Your task to perform on an android device: Search for Mexican restaurants on Maps Image 0: 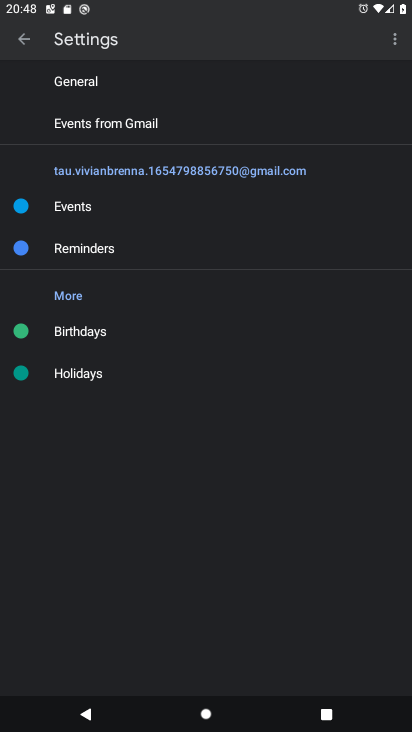
Step 0: press home button
Your task to perform on an android device: Search for Mexican restaurants on Maps Image 1: 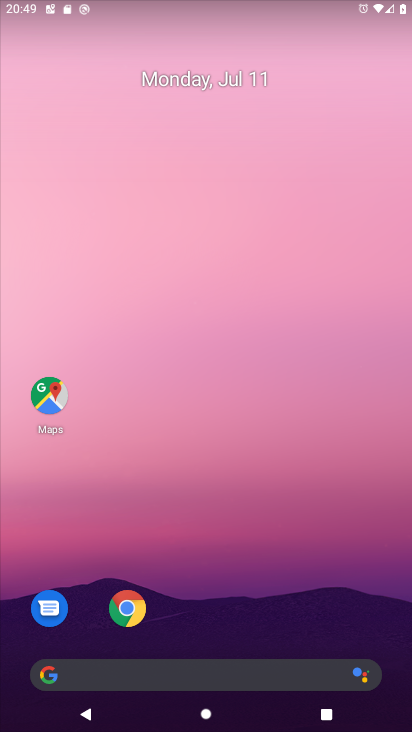
Step 1: click (136, 618)
Your task to perform on an android device: Search for Mexican restaurants on Maps Image 2: 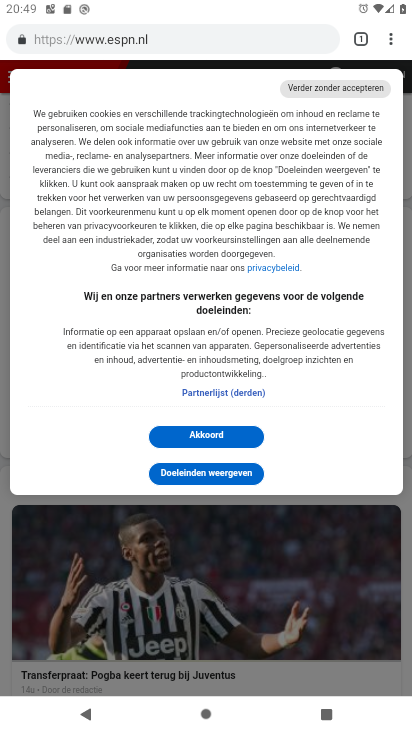
Step 2: click (218, 35)
Your task to perform on an android device: Search for Mexican restaurants on Maps Image 3: 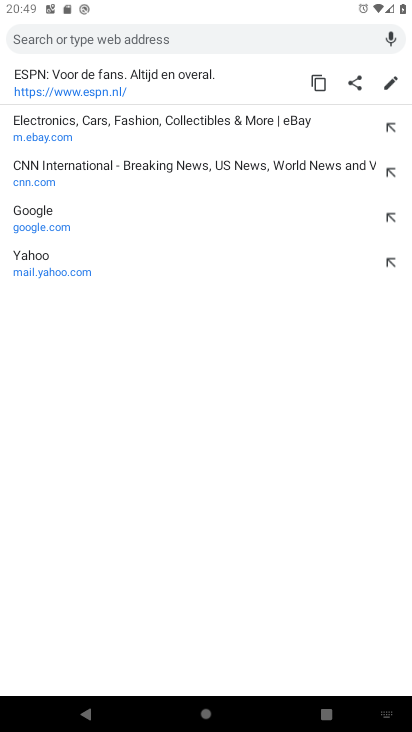
Step 3: press home button
Your task to perform on an android device: Search for Mexican restaurants on Maps Image 4: 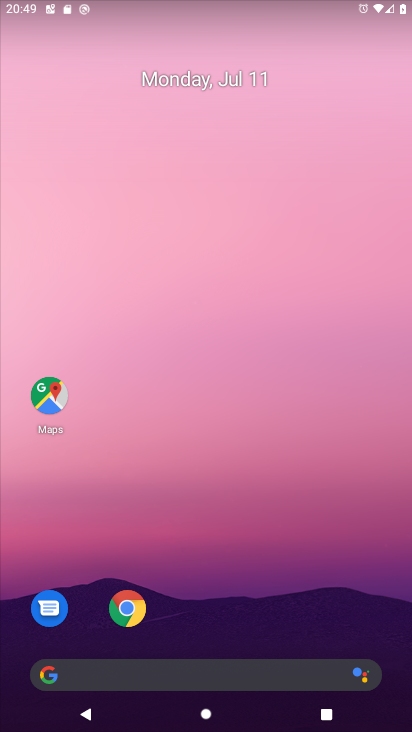
Step 4: click (56, 395)
Your task to perform on an android device: Search for Mexican restaurants on Maps Image 5: 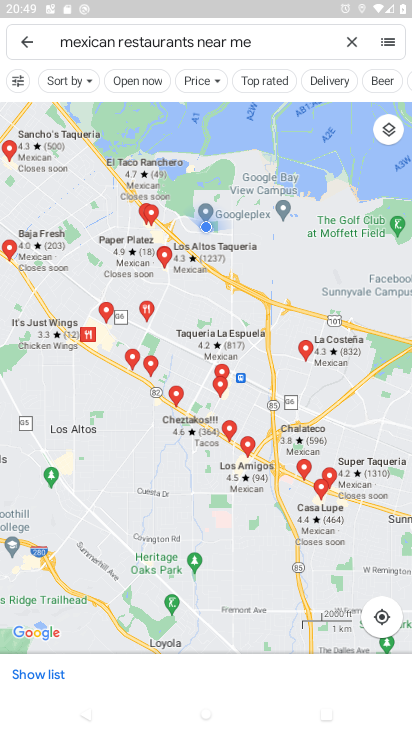
Step 5: click (280, 49)
Your task to perform on an android device: Search for Mexican restaurants on Maps Image 6: 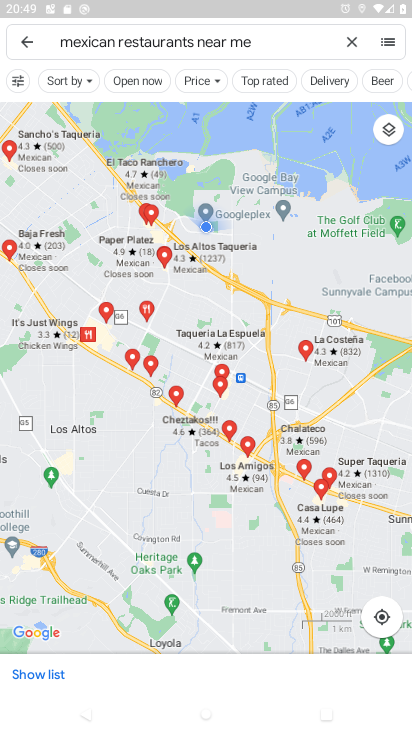
Step 6: click (280, 49)
Your task to perform on an android device: Search for Mexican restaurants on Maps Image 7: 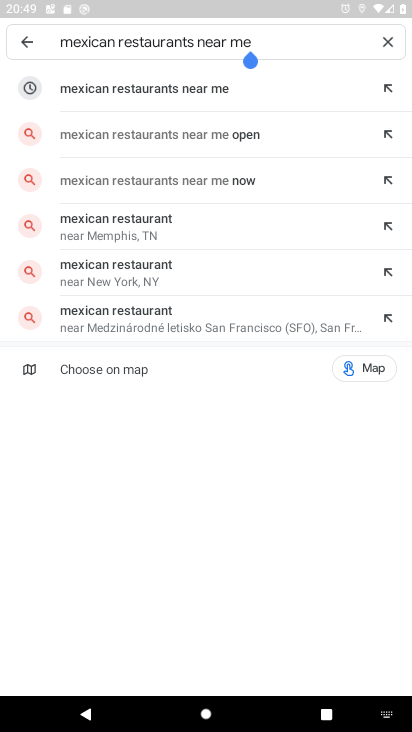
Step 7: click (233, 78)
Your task to perform on an android device: Search for Mexican restaurants on Maps Image 8: 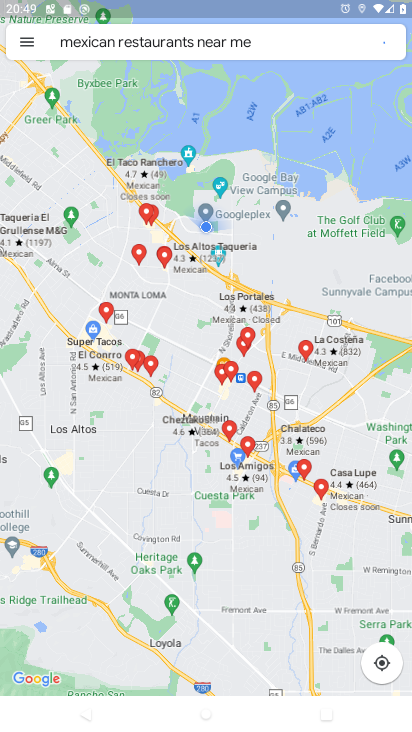
Step 8: task complete